Your task to perform on an android device: What's the weather going to be this weekend? Image 0: 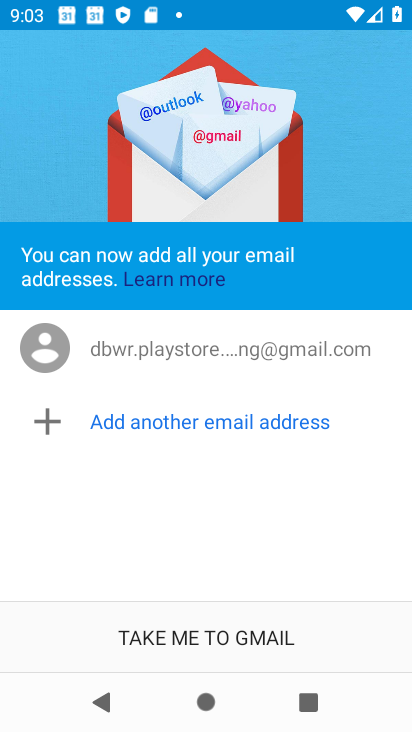
Step 0: press home button
Your task to perform on an android device: What's the weather going to be this weekend? Image 1: 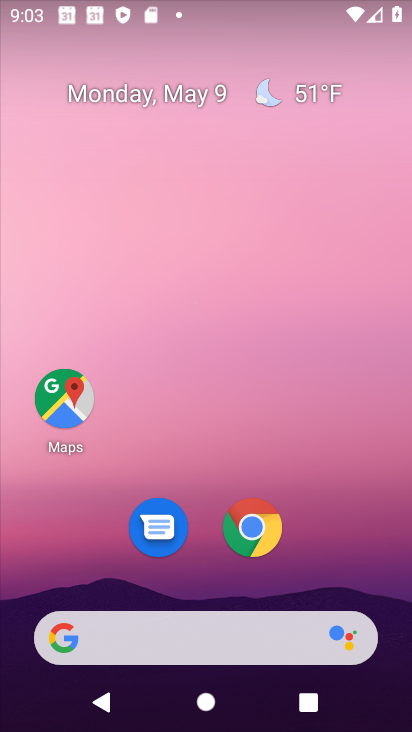
Step 1: click (305, 100)
Your task to perform on an android device: What's the weather going to be this weekend? Image 2: 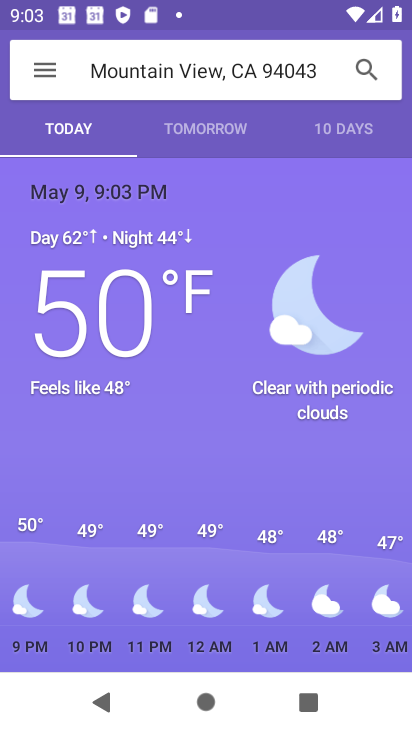
Step 2: click (347, 130)
Your task to perform on an android device: What's the weather going to be this weekend? Image 3: 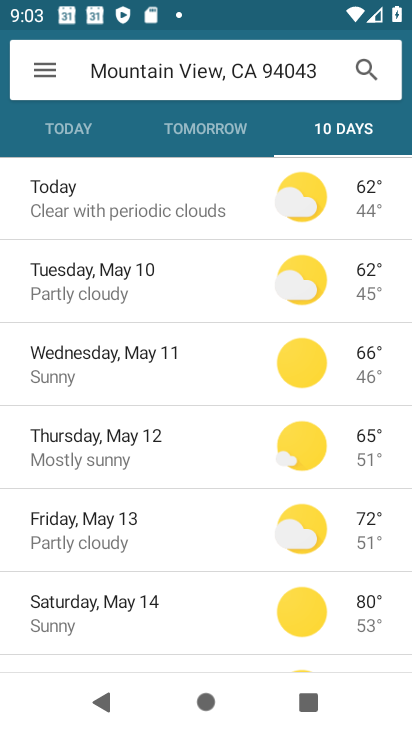
Step 3: task complete